Your task to perform on an android device: turn off sleep mode Image 0: 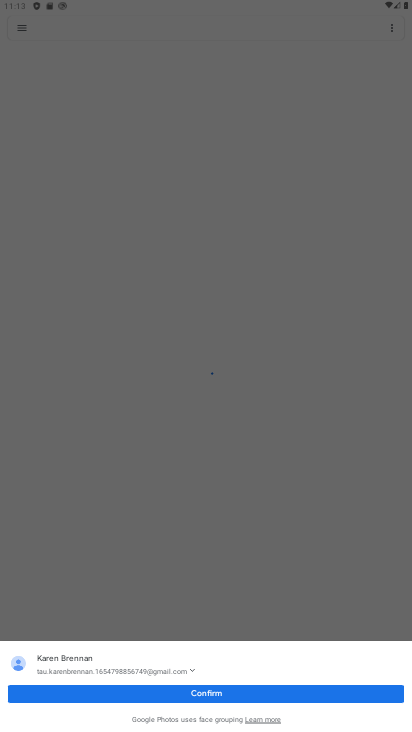
Step 0: press home button
Your task to perform on an android device: turn off sleep mode Image 1: 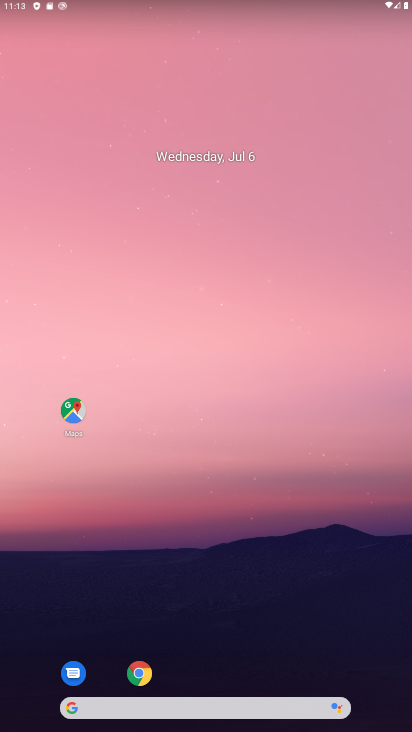
Step 1: drag from (229, 598) to (163, 246)
Your task to perform on an android device: turn off sleep mode Image 2: 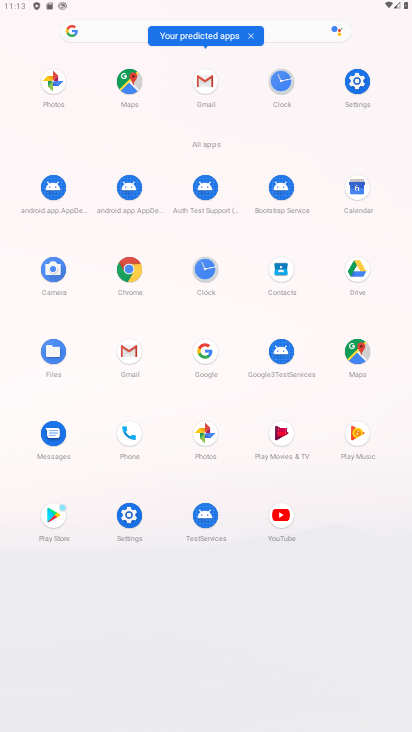
Step 2: click (355, 85)
Your task to perform on an android device: turn off sleep mode Image 3: 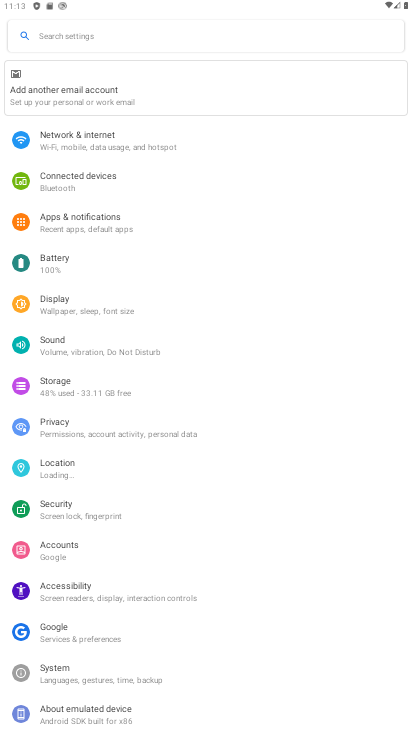
Step 3: click (54, 298)
Your task to perform on an android device: turn off sleep mode Image 4: 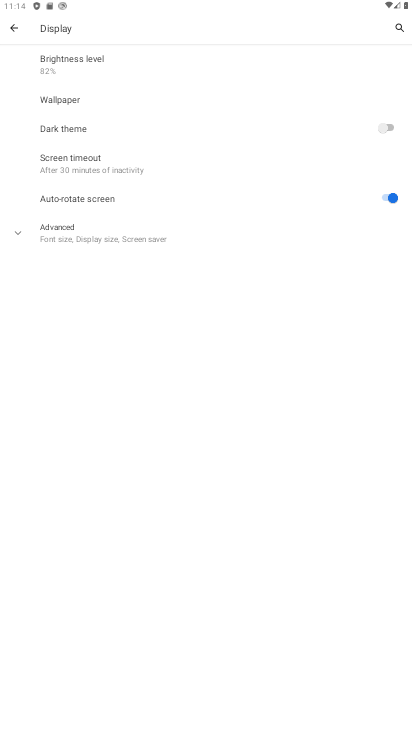
Step 4: task complete